Your task to perform on an android device: stop showing notifications on the lock screen Image 0: 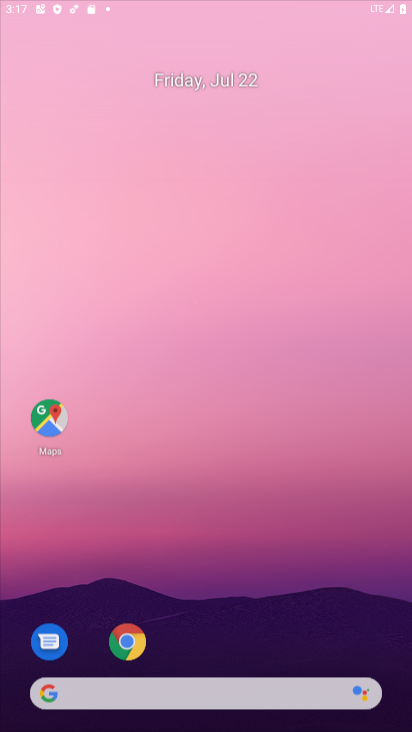
Step 0: press home button
Your task to perform on an android device: stop showing notifications on the lock screen Image 1: 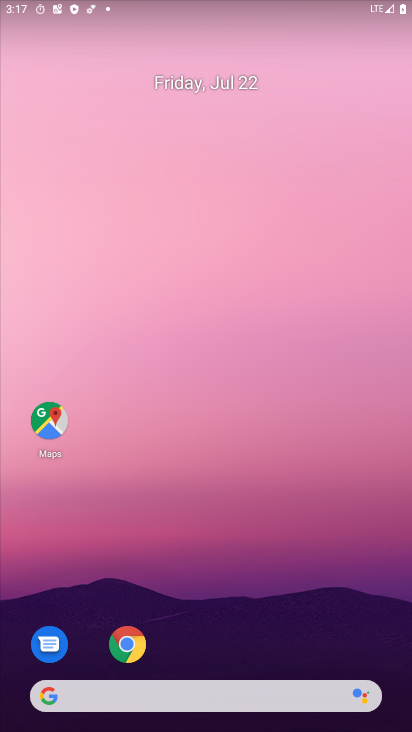
Step 1: drag from (225, 631) to (216, 172)
Your task to perform on an android device: stop showing notifications on the lock screen Image 2: 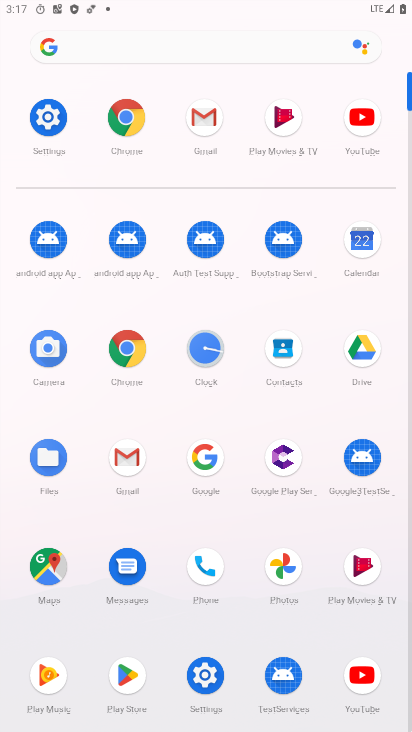
Step 2: click (38, 111)
Your task to perform on an android device: stop showing notifications on the lock screen Image 3: 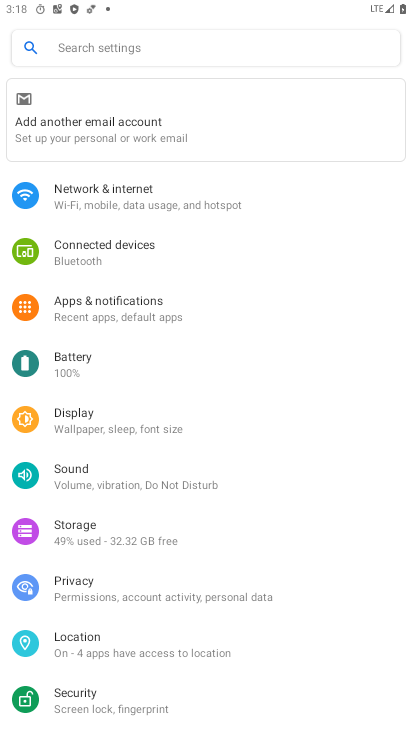
Step 3: click (113, 316)
Your task to perform on an android device: stop showing notifications on the lock screen Image 4: 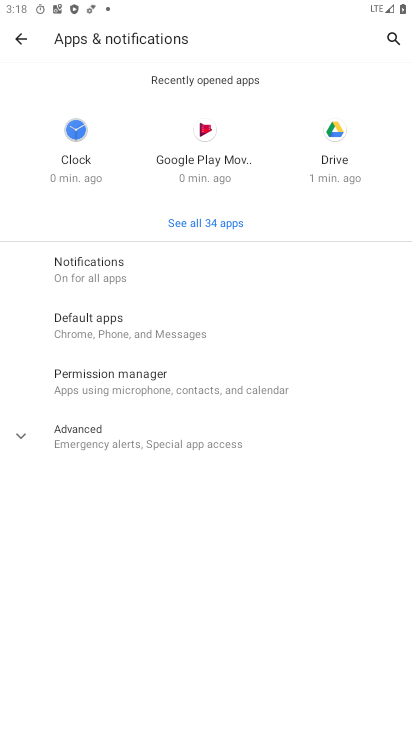
Step 4: click (73, 271)
Your task to perform on an android device: stop showing notifications on the lock screen Image 5: 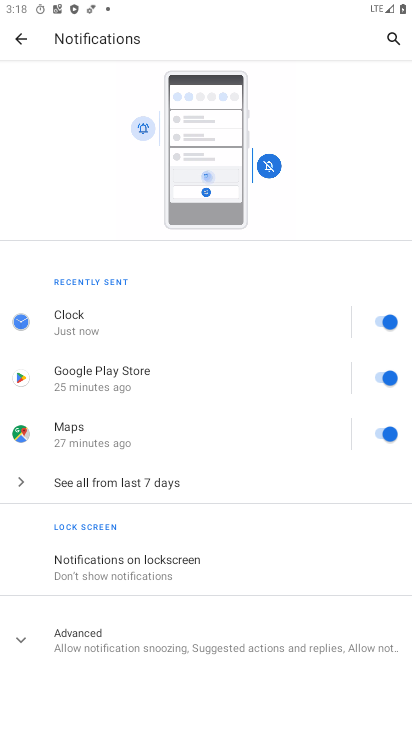
Step 5: click (129, 564)
Your task to perform on an android device: stop showing notifications on the lock screen Image 6: 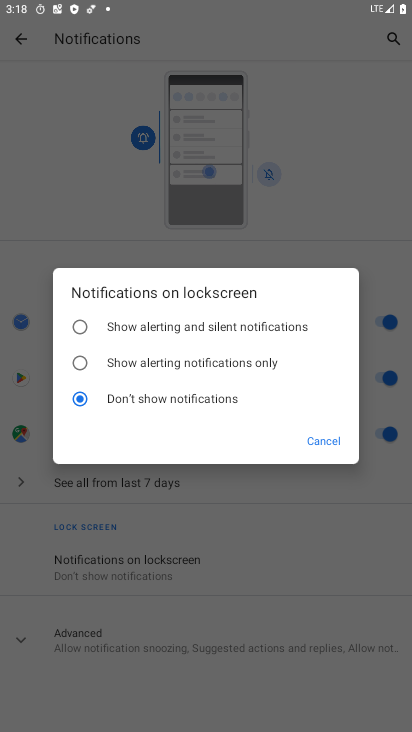
Step 6: task complete